Your task to perform on an android device: Is it going to rain today? Image 0: 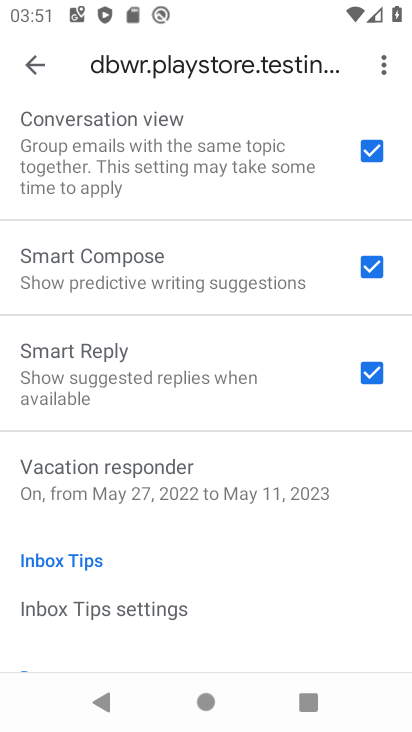
Step 0: press home button
Your task to perform on an android device: Is it going to rain today? Image 1: 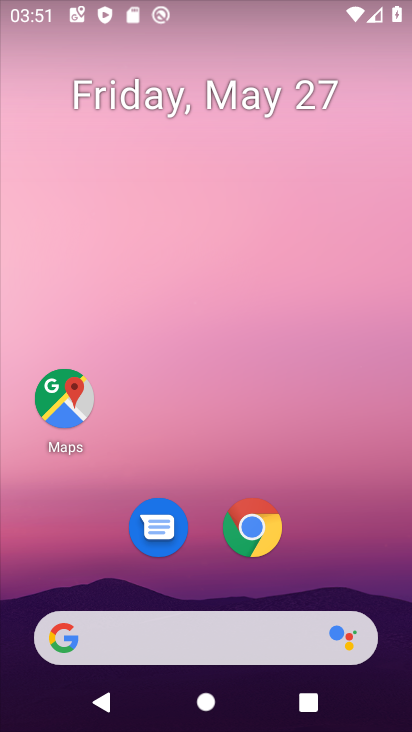
Step 1: click (268, 539)
Your task to perform on an android device: Is it going to rain today? Image 2: 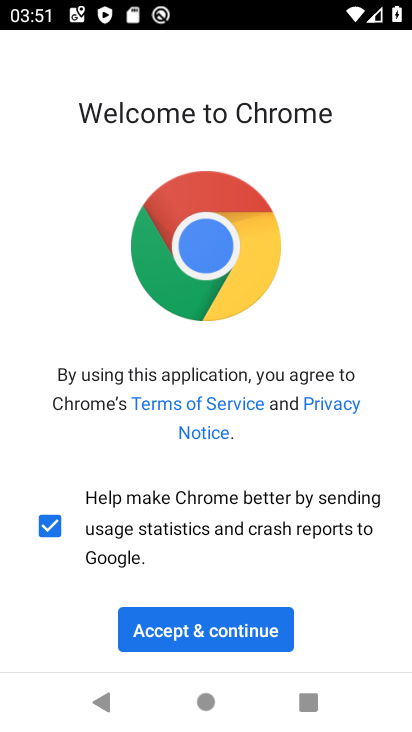
Step 2: click (267, 613)
Your task to perform on an android device: Is it going to rain today? Image 3: 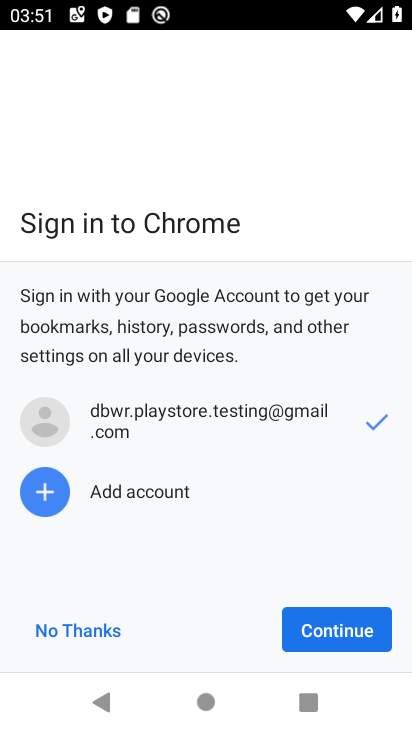
Step 3: click (341, 649)
Your task to perform on an android device: Is it going to rain today? Image 4: 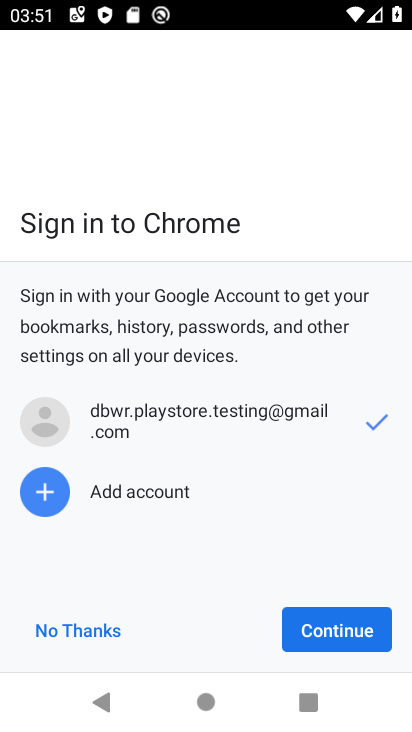
Step 4: click (341, 649)
Your task to perform on an android device: Is it going to rain today? Image 5: 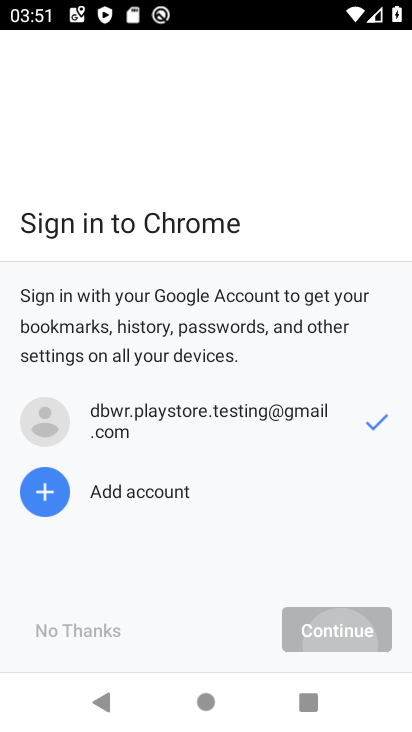
Step 5: click (341, 649)
Your task to perform on an android device: Is it going to rain today? Image 6: 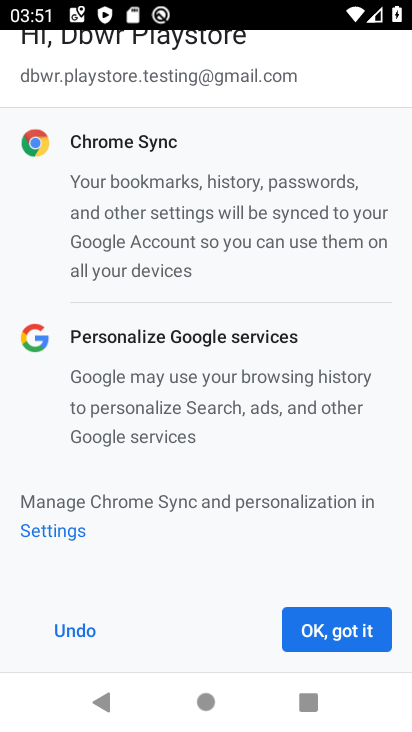
Step 6: click (341, 649)
Your task to perform on an android device: Is it going to rain today? Image 7: 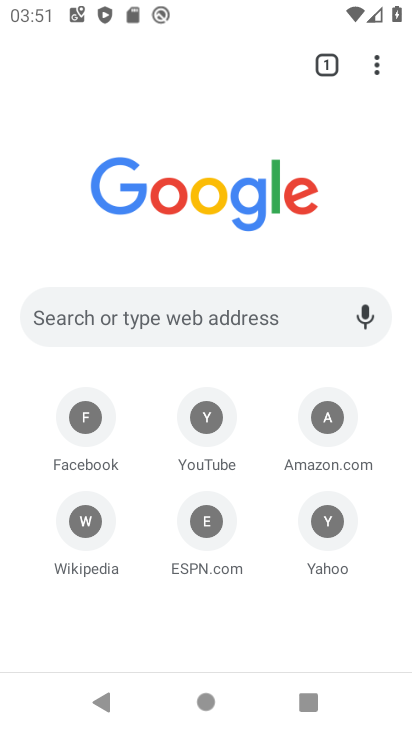
Step 7: click (227, 66)
Your task to perform on an android device: Is it going to rain today? Image 8: 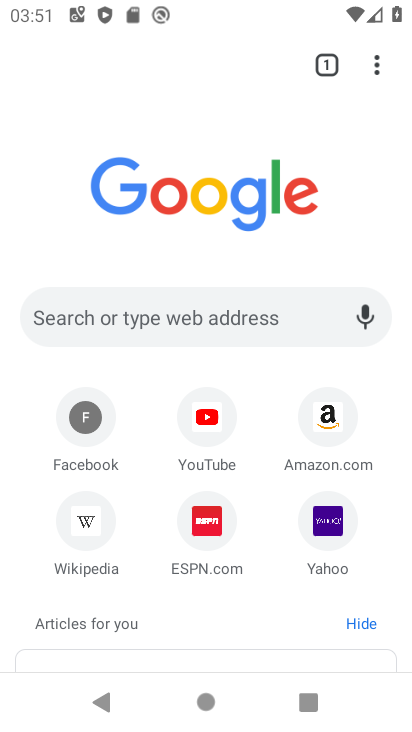
Step 8: click (218, 318)
Your task to perform on an android device: Is it going to rain today? Image 9: 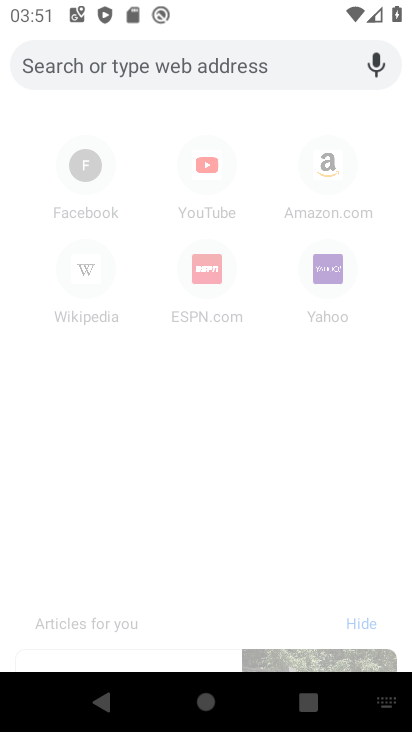
Step 9: type "Is it going to rain today?"
Your task to perform on an android device: Is it going to rain today? Image 10: 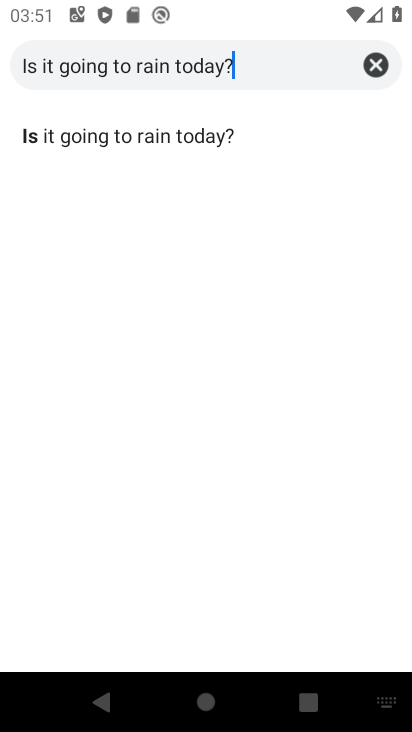
Step 10: type ""
Your task to perform on an android device: Is it going to rain today? Image 11: 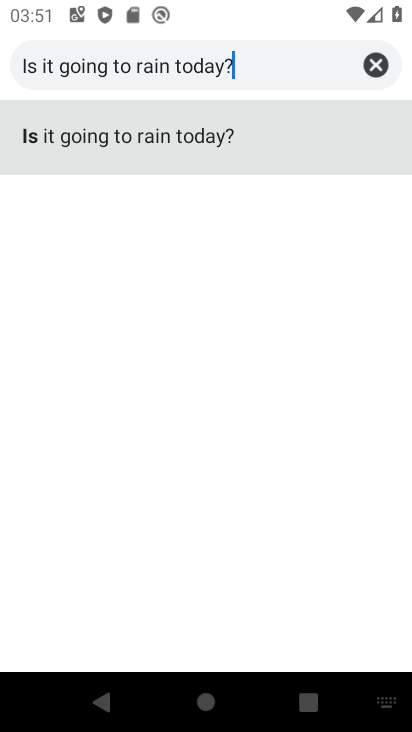
Step 11: click (132, 137)
Your task to perform on an android device: Is it going to rain today? Image 12: 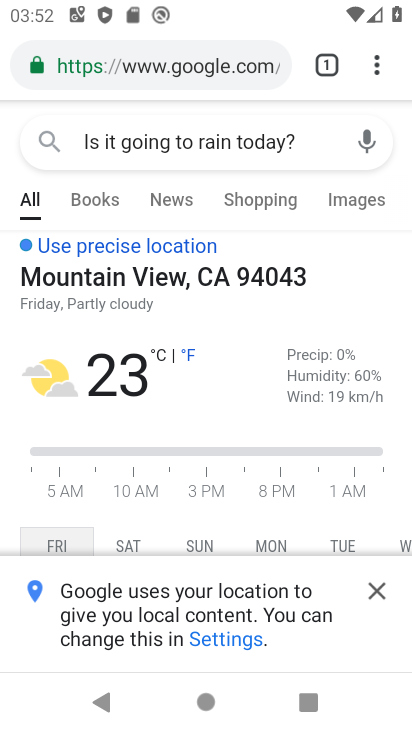
Step 12: task complete